Your task to perform on an android device: set the stopwatch Image 0: 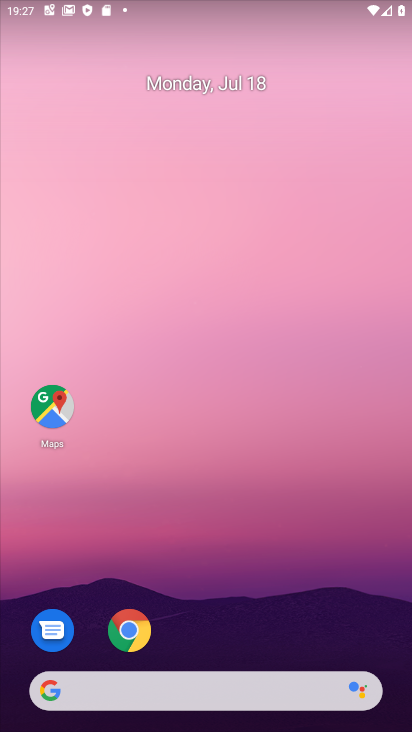
Step 0: drag from (319, 598) to (205, 0)
Your task to perform on an android device: set the stopwatch Image 1: 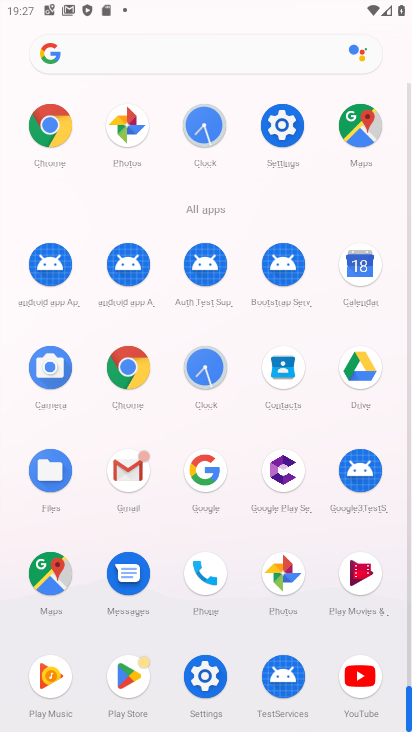
Step 1: click (192, 110)
Your task to perform on an android device: set the stopwatch Image 2: 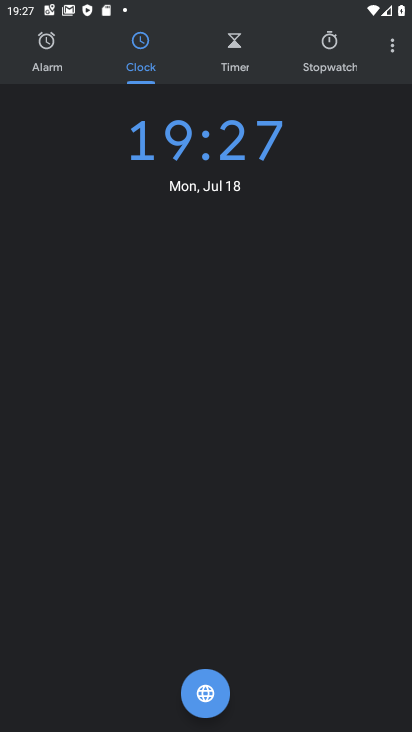
Step 2: click (330, 64)
Your task to perform on an android device: set the stopwatch Image 3: 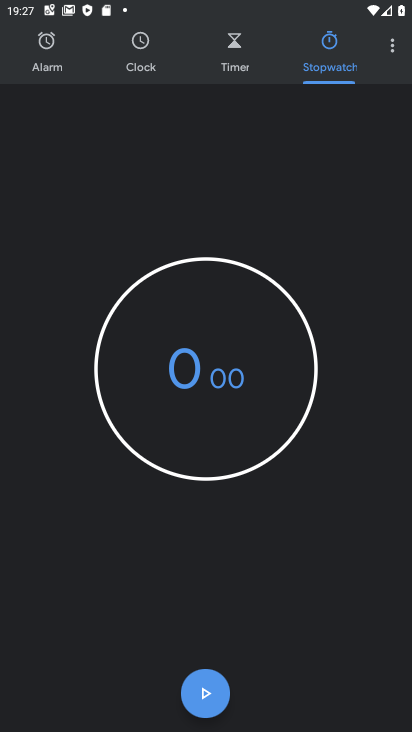
Step 3: click (211, 701)
Your task to perform on an android device: set the stopwatch Image 4: 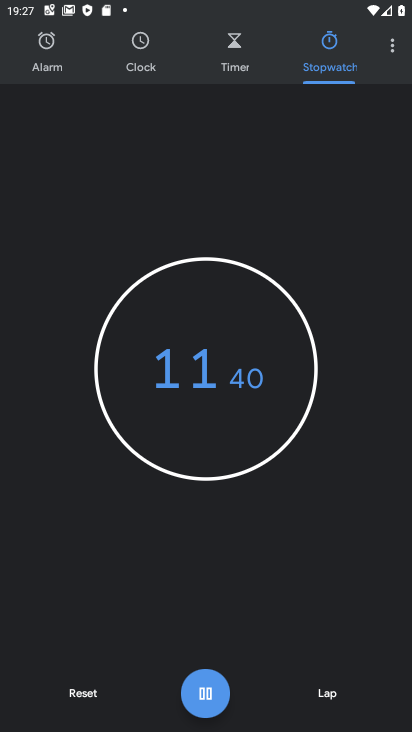
Step 4: task complete